Your task to perform on an android device: Is it going to rain this weekend? Image 0: 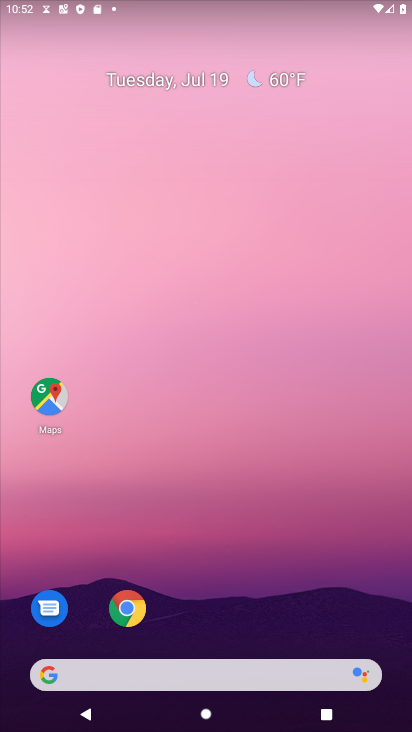
Step 0: click (217, 675)
Your task to perform on an android device: Is it going to rain this weekend? Image 1: 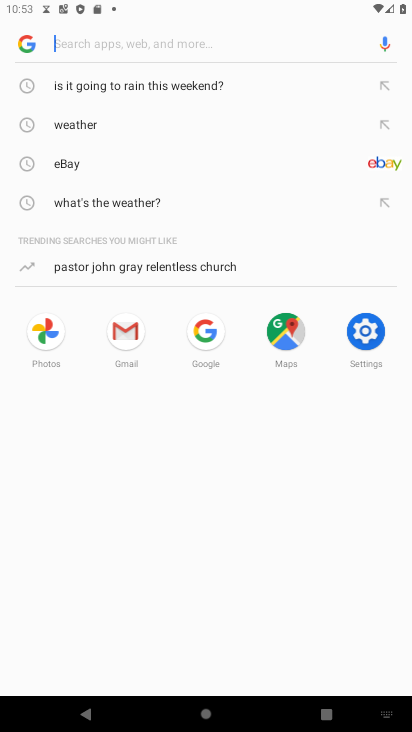
Step 1: type "is it going to rain this weekend"
Your task to perform on an android device: Is it going to rain this weekend? Image 2: 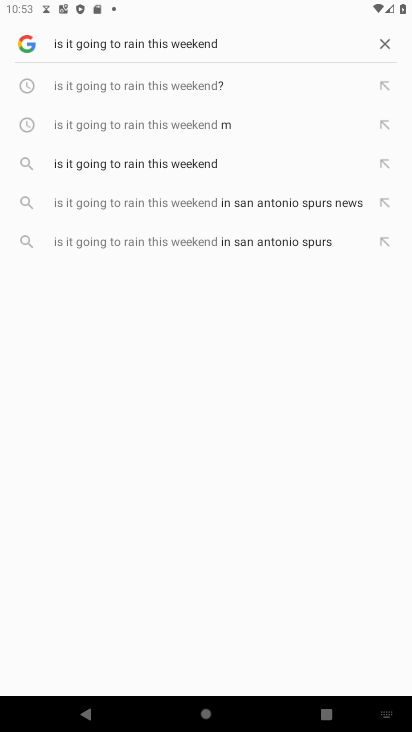
Step 2: click (203, 90)
Your task to perform on an android device: Is it going to rain this weekend? Image 3: 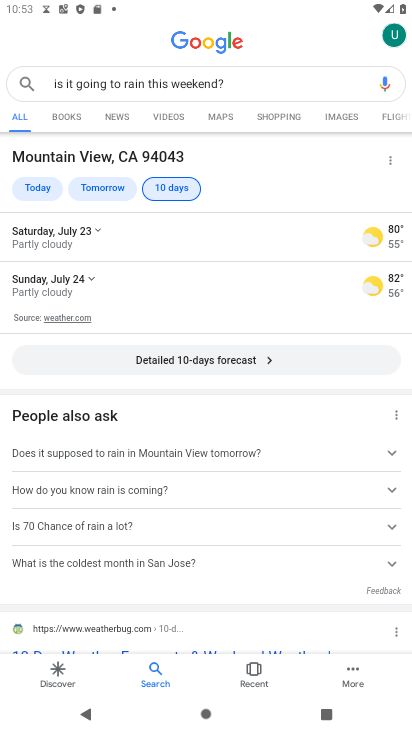
Step 3: task complete